Your task to perform on an android device: snooze an email in the gmail app Image 0: 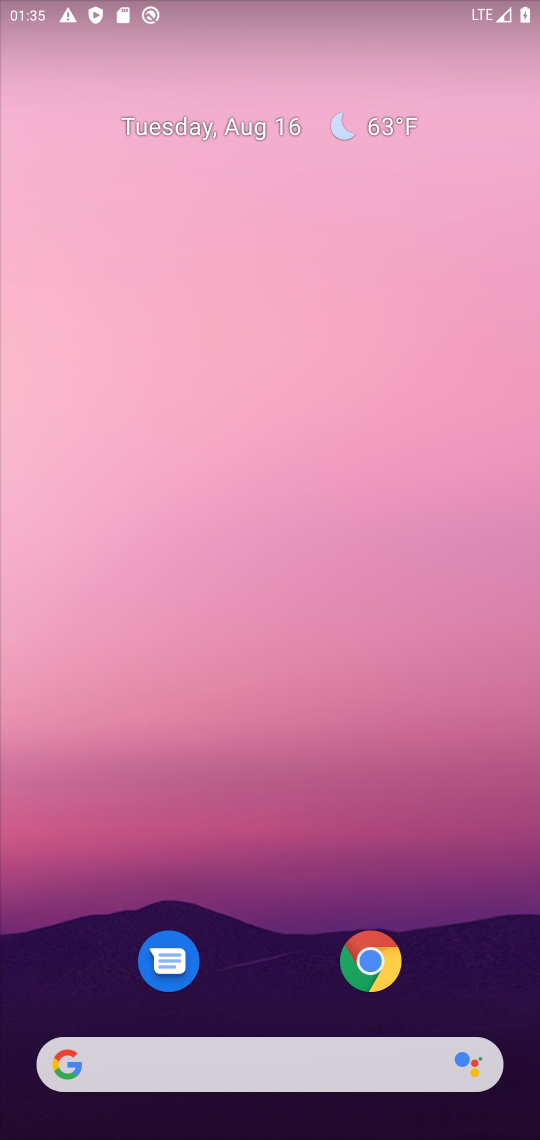
Step 0: press home button
Your task to perform on an android device: snooze an email in the gmail app Image 1: 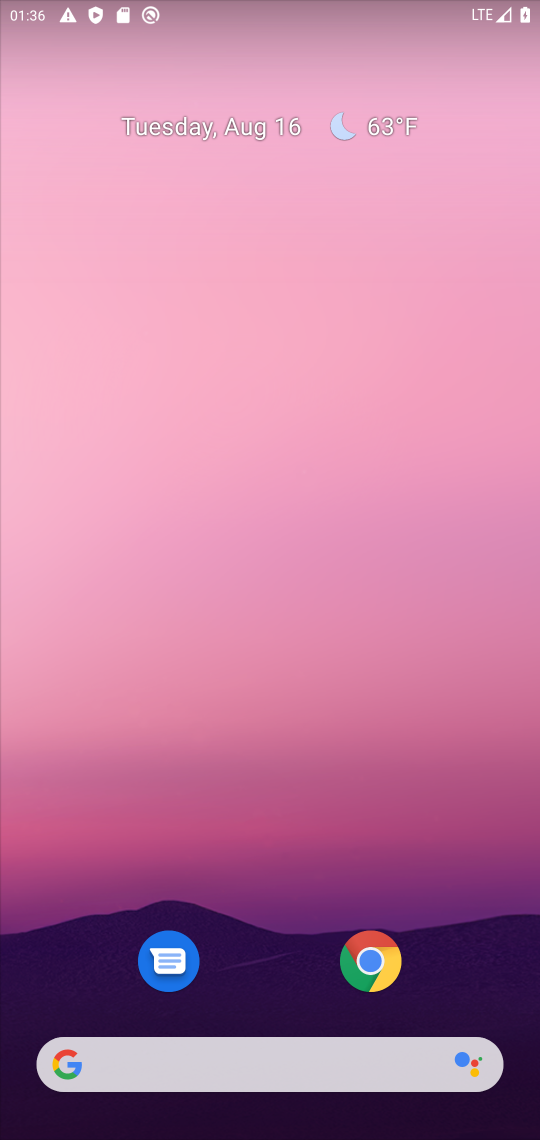
Step 1: drag from (222, 965) to (330, 4)
Your task to perform on an android device: snooze an email in the gmail app Image 2: 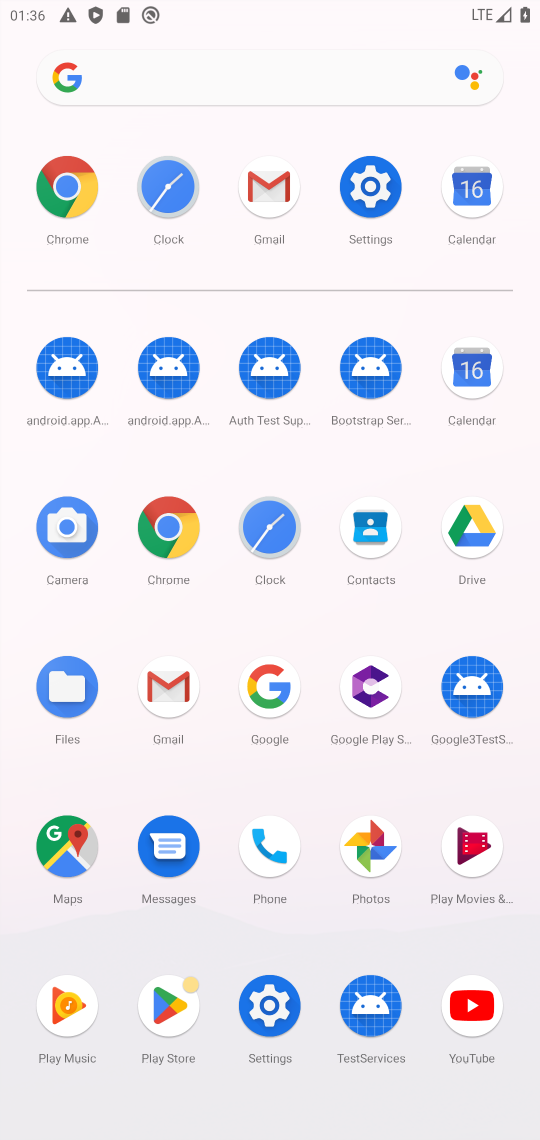
Step 2: click (172, 712)
Your task to perform on an android device: snooze an email in the gmail app Image 3: 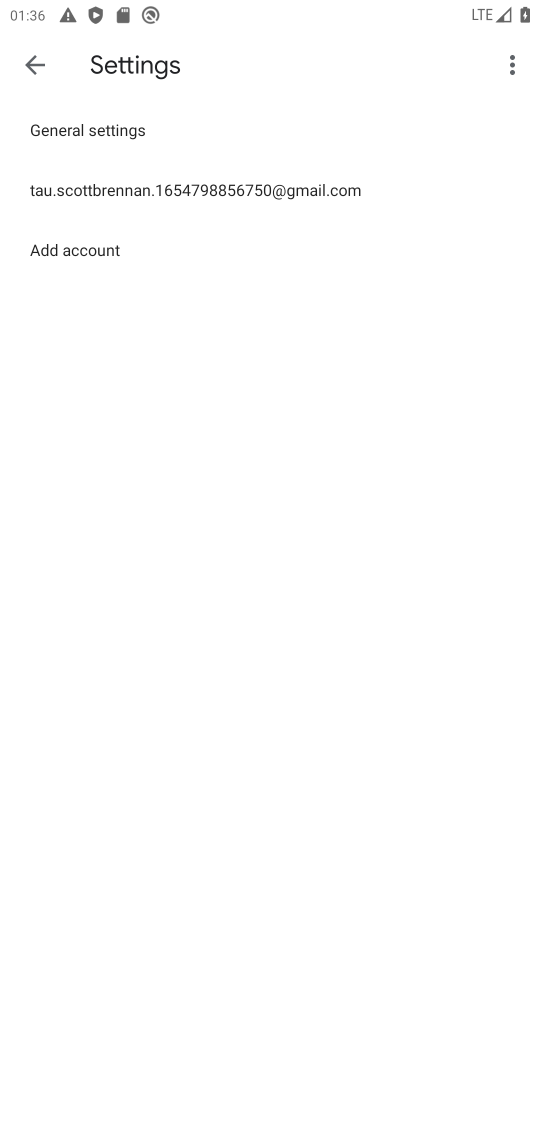
Step 3: click (25, 69)
Your task to perform on an android device: snooze an email in the gmail app Image 4: 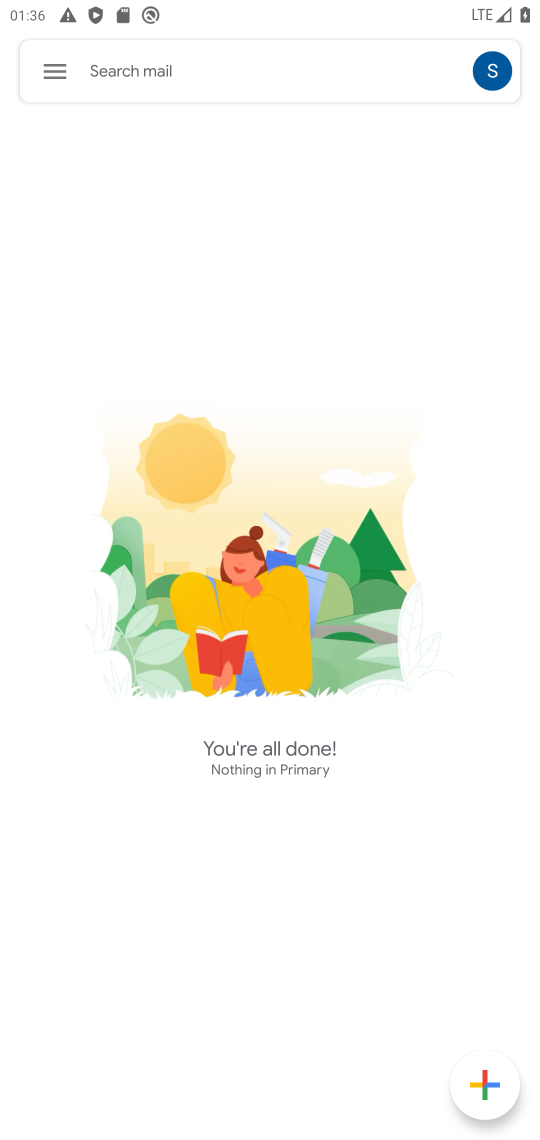
Step 4: click (58, 73)
Your task to perform on an android device: snooze an email in the gmail app Image 5: 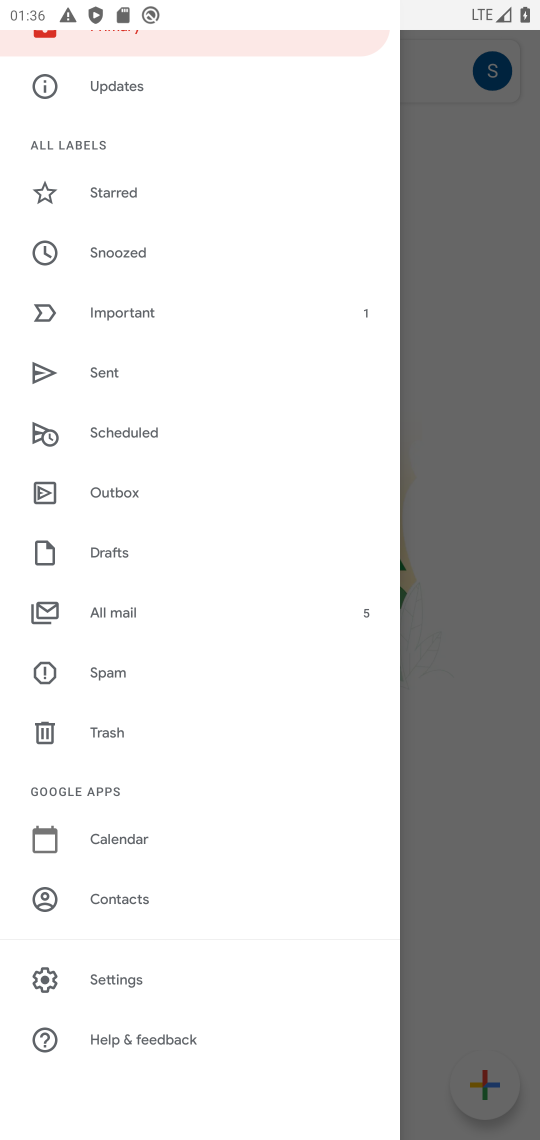
Step 5: task complete